Your task to perform on an android device: turn on javascript in the chrome app Image 0: 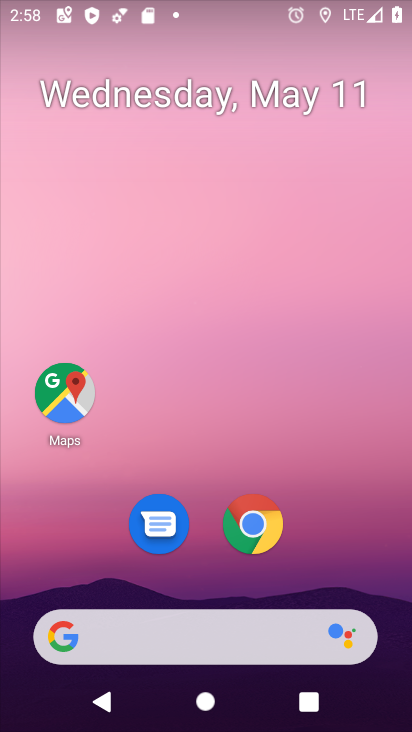
Step 0: click (275, 511)
Your task to perform on an android device: turn on javascript in the chrome app Image 1: 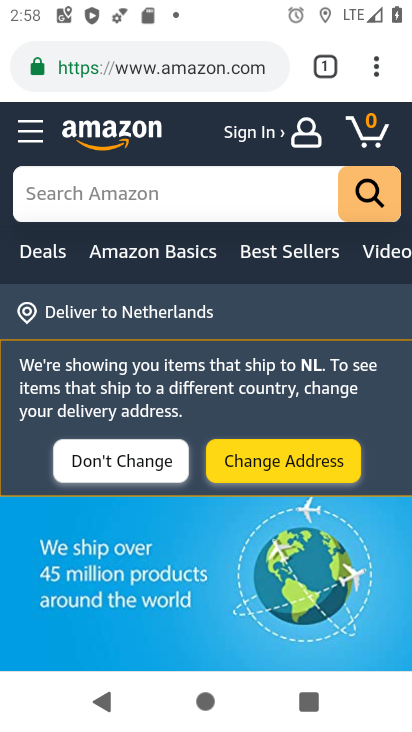
Step 1: click (371, 75)
Your task to perform on an android device: turn on javascript in the chrome app Image 2: 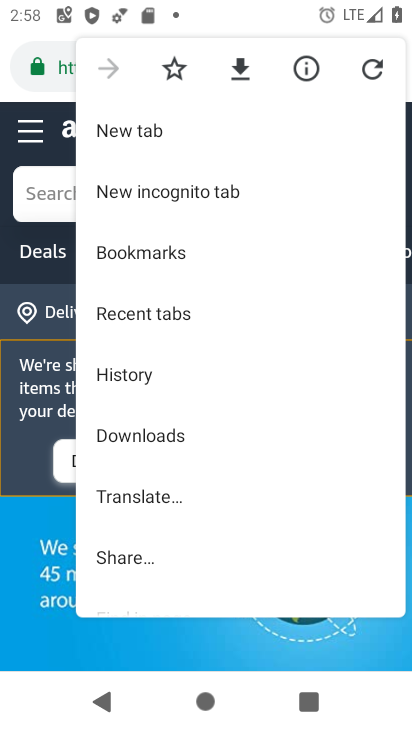
Step 2: drag from (212, 464) to (211, 82)
Your task to perform on an android device: turn on javascript in the chrome app Image 3: 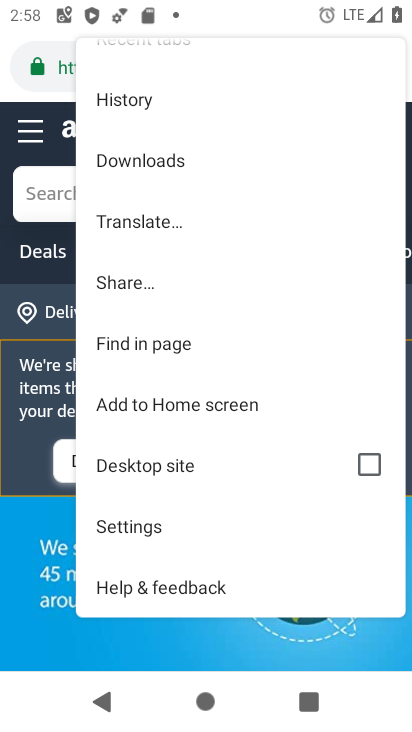
Step 3: click (169, 526)
Your task to perform on an android device: turn on javascript in the chrome app Image 4: 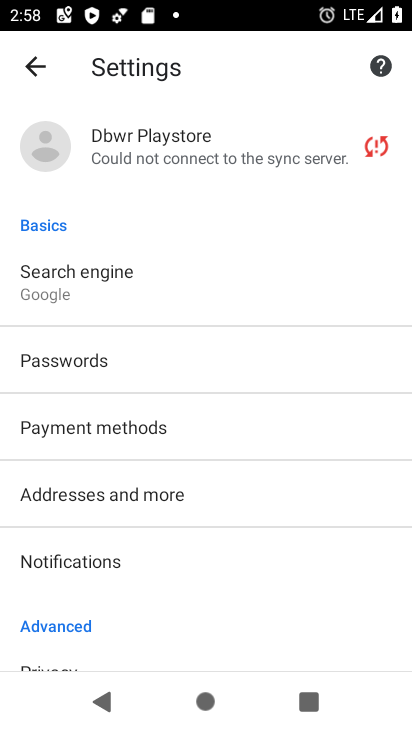
Step 4: drag from (217, 578) to (229, 205)
Your task to perform on an android device: turn on javascript in the chrome app Image 5: 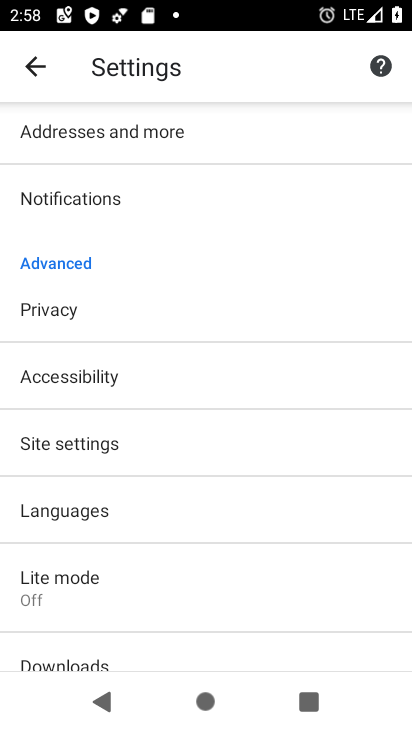
Step 5: click (159, 448)
Your task to perform on an android device: turn on javascript in the chrome app Image 6: 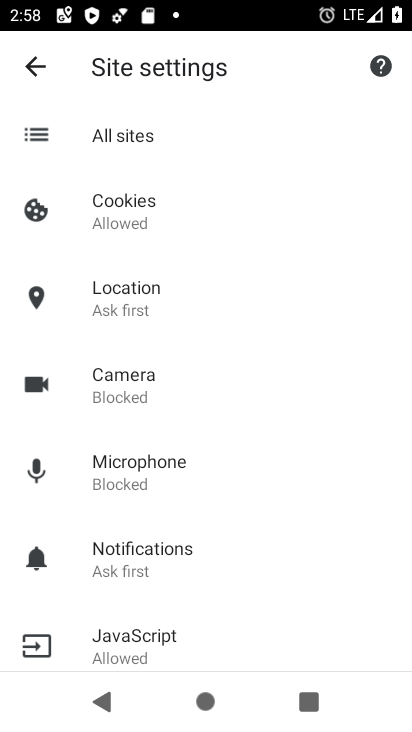
Step 6: click (161, 631)
Your task to perform on an android device: turn on javascript in the chrome app Image 7: 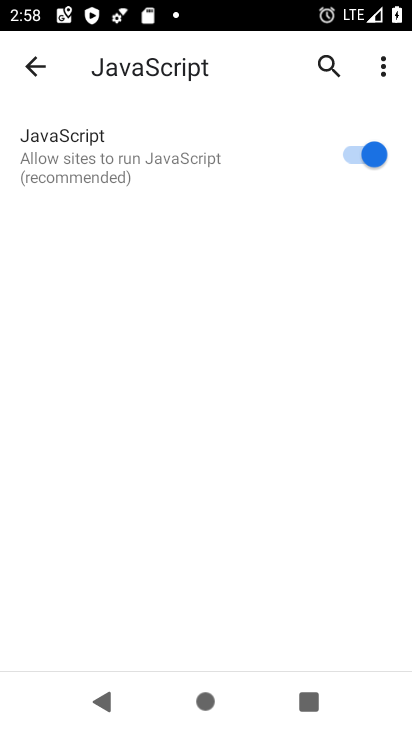
Step 7: task complete